Your task to perform on an android device: open a bookmark in the chrome app Image 0: 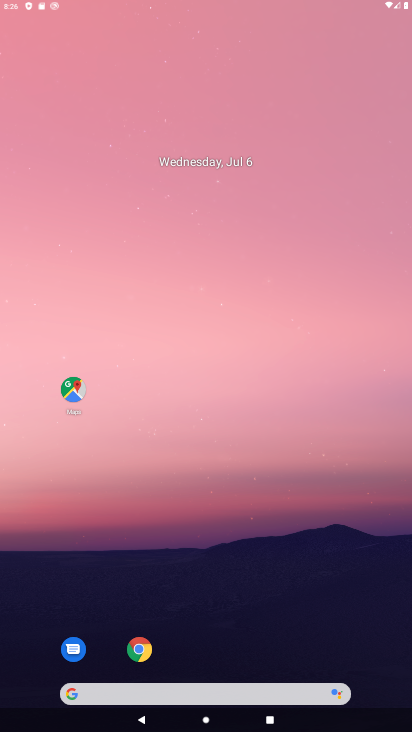
Step 0: drag from (244, 629) to (202, 130)
Your task to perform on an android device: open a bookmark in the chrome app Image 1: 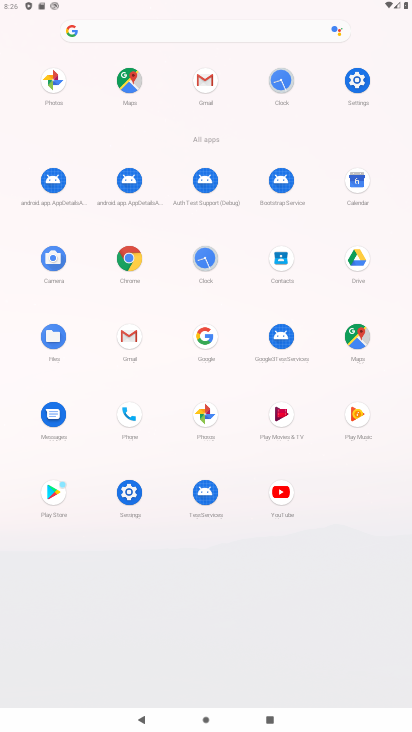
Step 1: click (210, 345)
Your task to perform on an android device: open a bookmark in the chrome app Image 2: 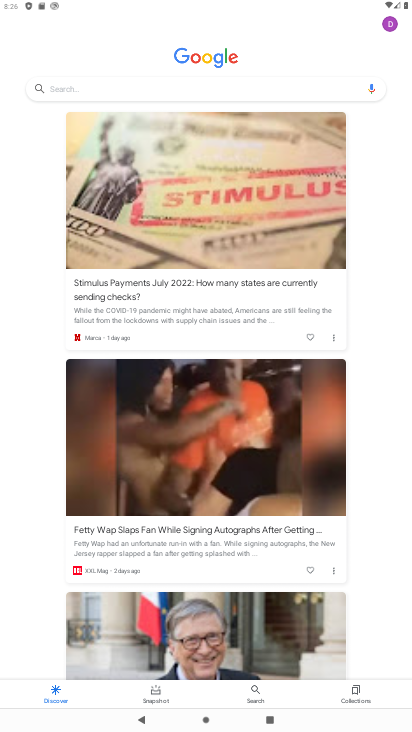
Step 2: click (74, 92)
Your task to perform on an android device: open a bookmark in the chrome app Image 3: 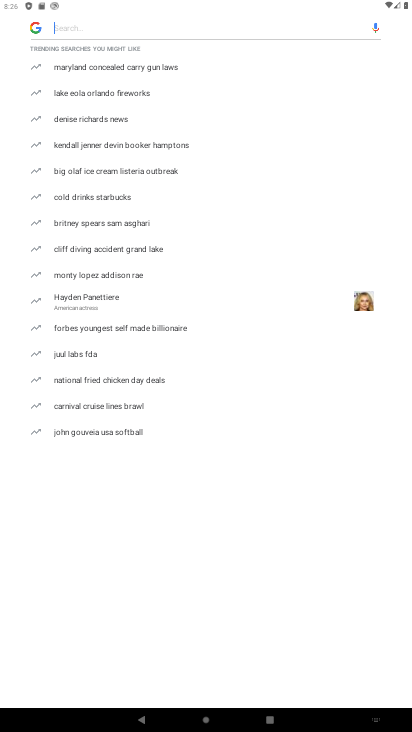
Step 3: press back button
Your task to perform on an android device: open a bookmark in the chrome app Image 4: 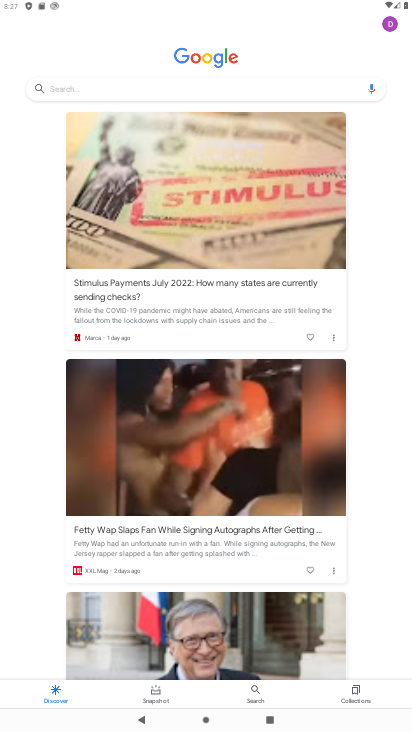
Step 4: press home button
Your task to perform on an android device: open a bookmark in the chrome app Image 5: 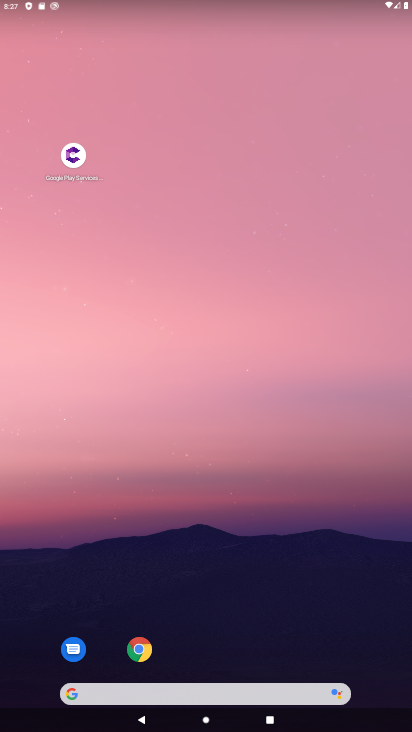
Step 5: drag from (251, 695) to (70, 39)
Your task to perform on an android device: open a bookmark in the chrome app Image 6: 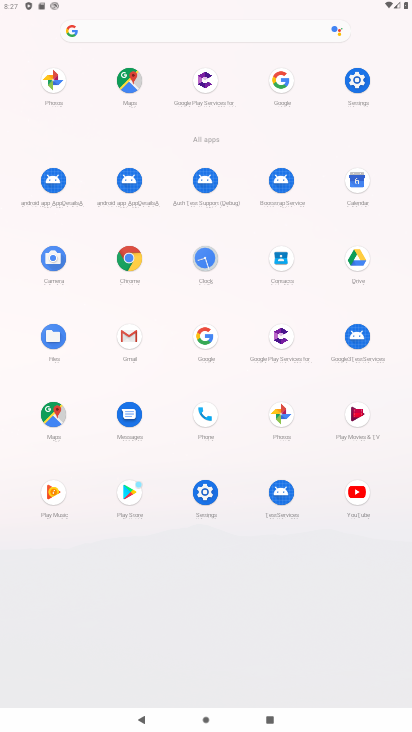
Step 6: click (123, 261)
Your task to perform on an android device: open a bookmark in the chrome app Image 7: 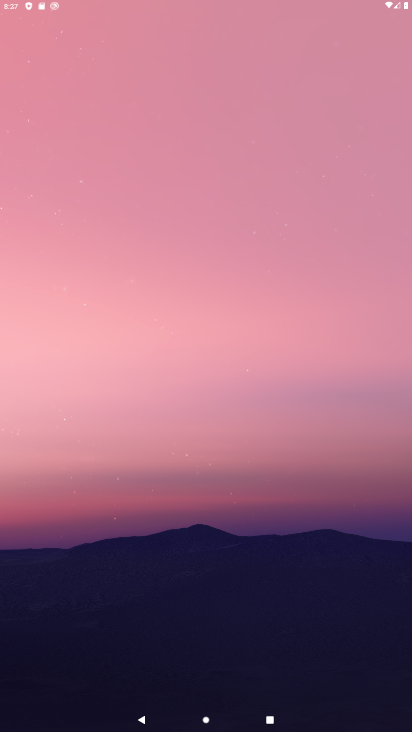
Step 7: click (131, 264)
Your task to perform on an android device: open a bookmark in the chrome app Image 8: 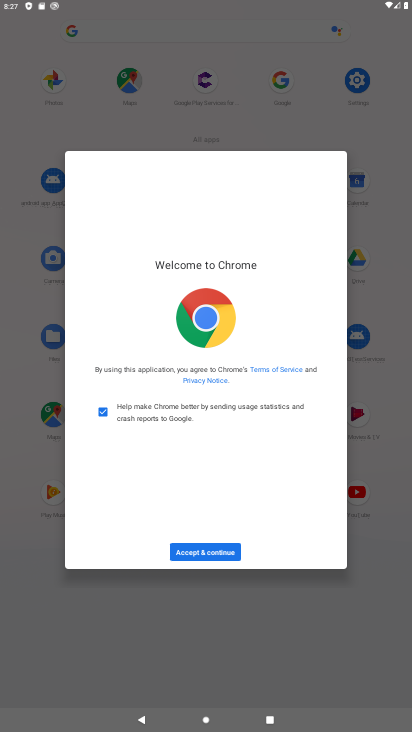
Step 8: click (201, 549)
Your task to perform on an android device: open a bookmark in the chrome app Image 9: 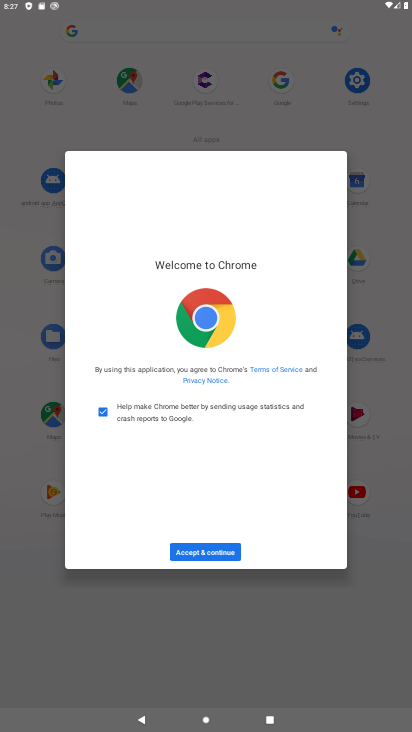
Step 9: click (201, 552)
Your task to perform on an android device: open a bookmark in the chrome app Image 10: 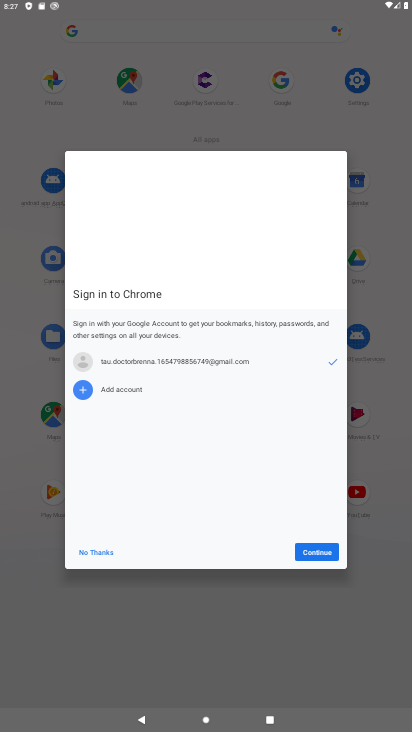
Step 10: click (322, 549)
Your task to perform on an android device: open a bookmark in the chrome app Image 11: 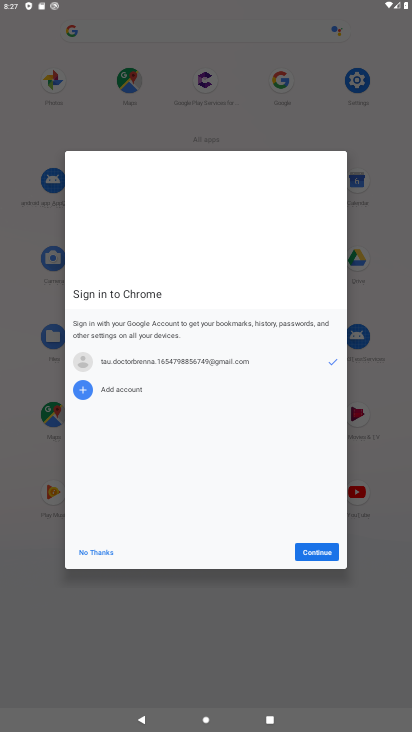
Step 11: click (323, 549)
Your task to perform on an android device: open a bookmark in the chrome app Image 12: 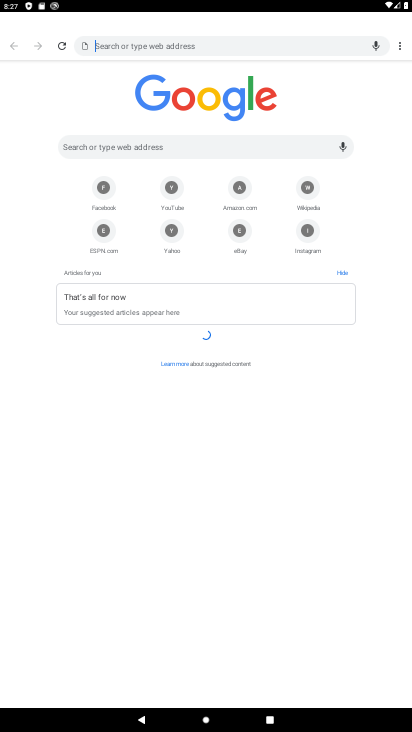
Step 12: drag from (395, 45) to (313, 96)
Your task to perform on an android device: open a bookmark in the chrome app Image 13: 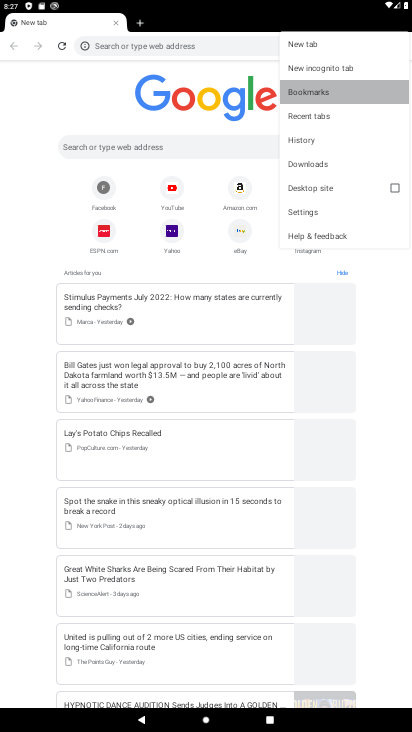
Step 13: click (313, 96)
Your task to perform on an android device: open a bookmark in the chrome app Image 14: 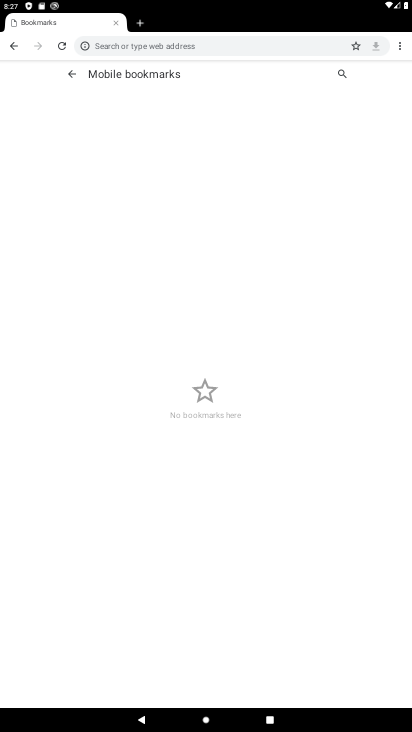
Step 14: task complete